Your task to perform on an android device: What's the news this month? Image 0: 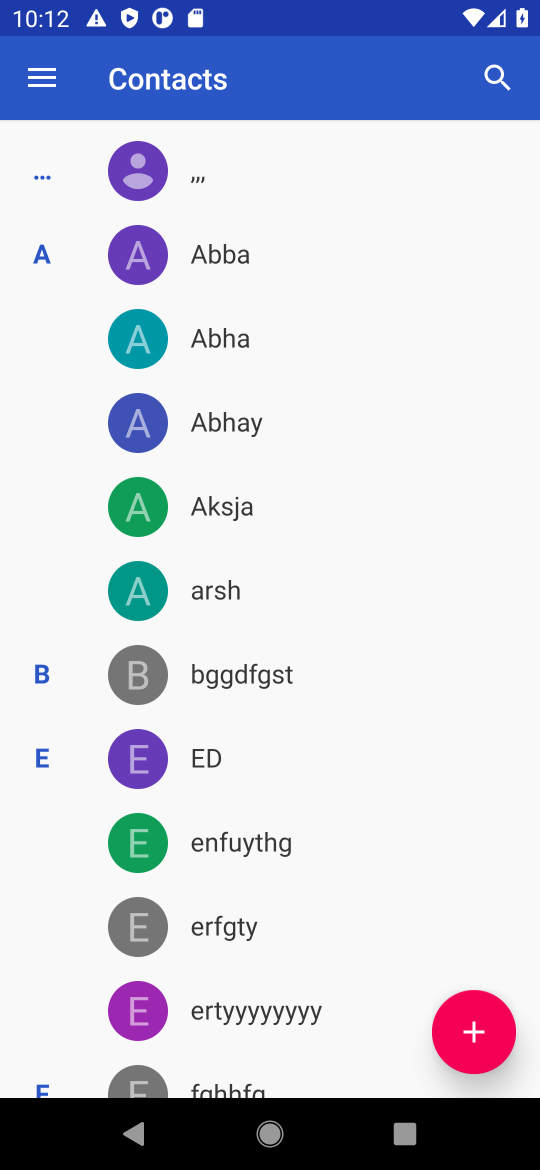
Step 0: press home button
Your task to perform on an android device: What's the news this month? Image 1: 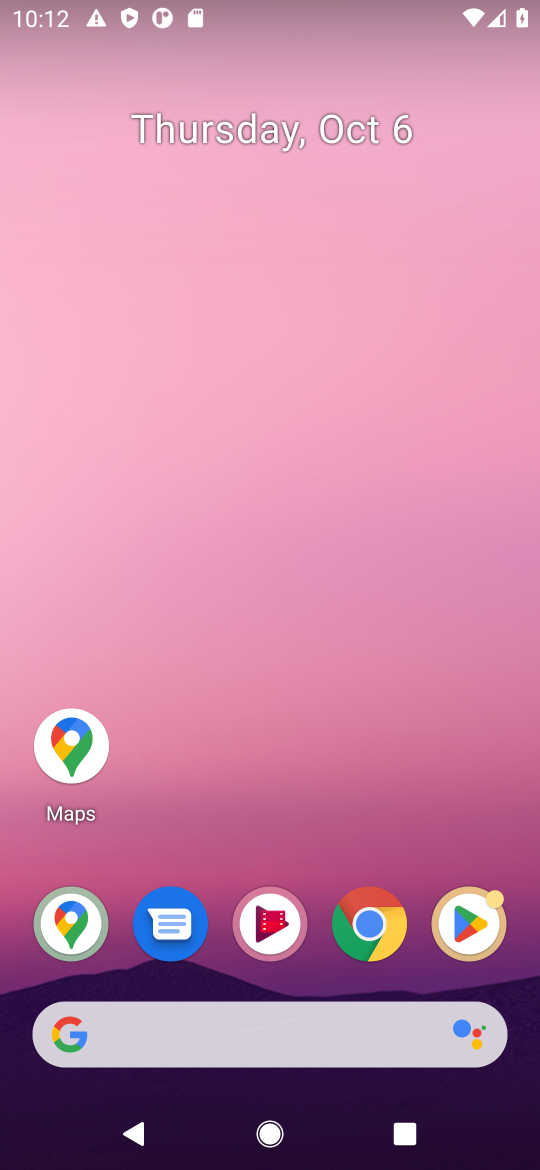
Step 1: click (376, 916)
Your task to perform on an android device: What's the news this month? Image 2: 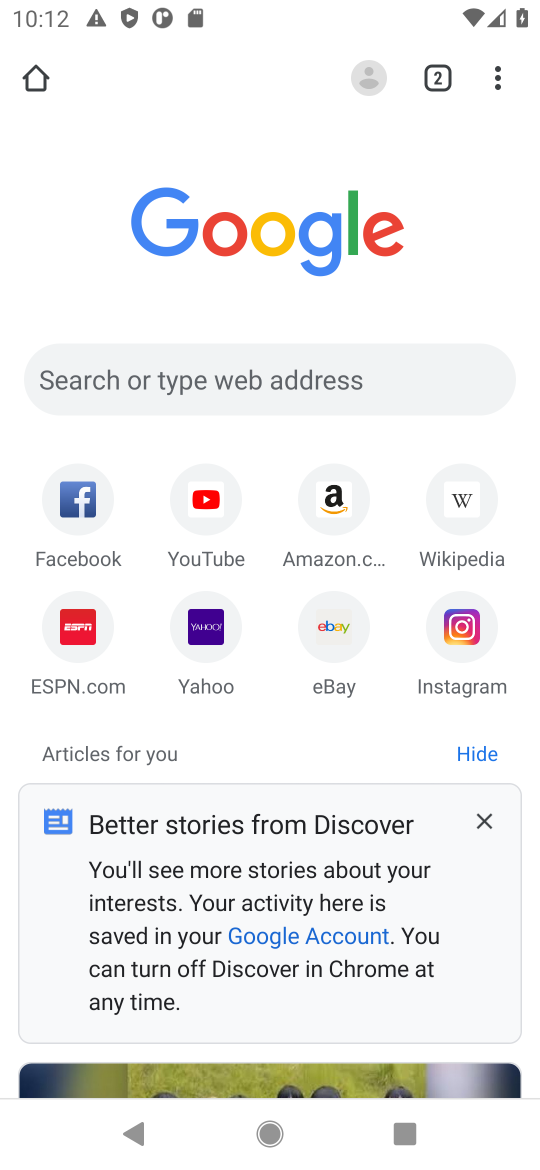
Step 2: click (166, 378)
Your task to perform on an android device: What's the news this month? Image 3: 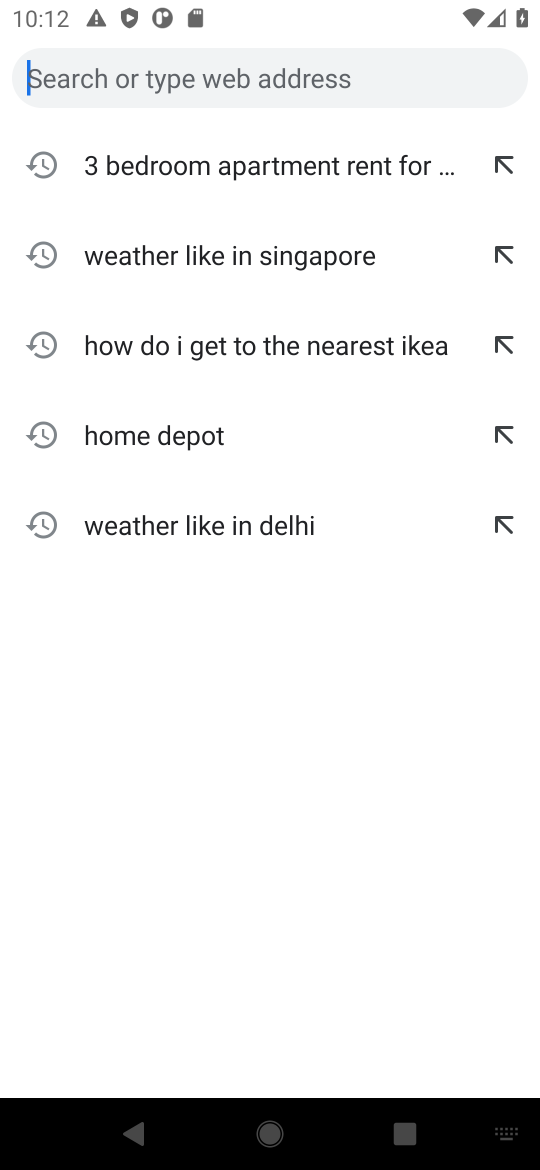
Step 3: type "news this month"
Your task to perform on an android device: What's the news this month? Image 4: 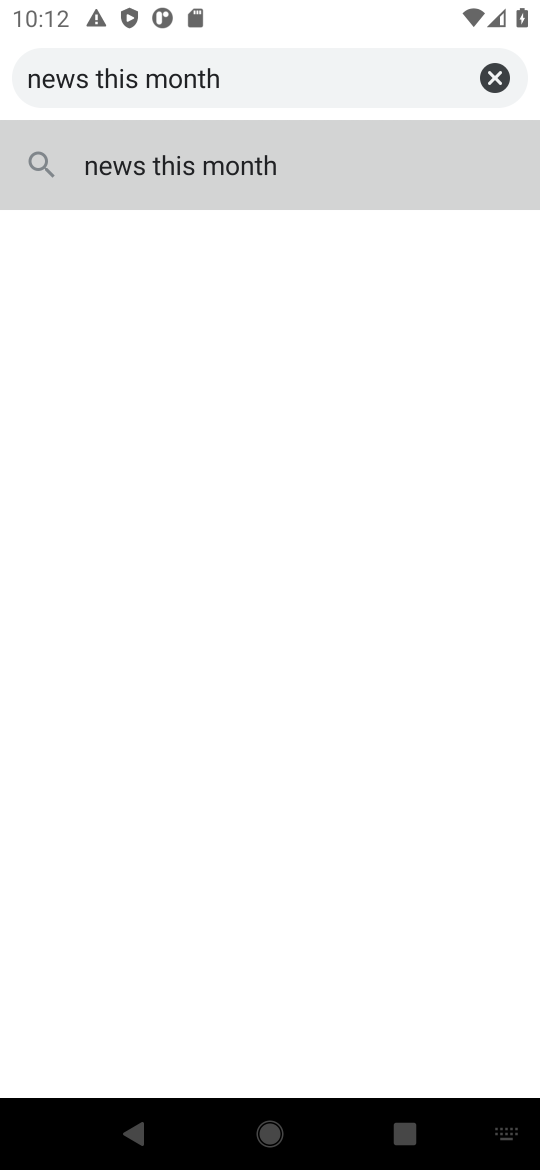
Step 4: click (279, 176)
Your task to perform on an android device: What's the news this month? Image 5: 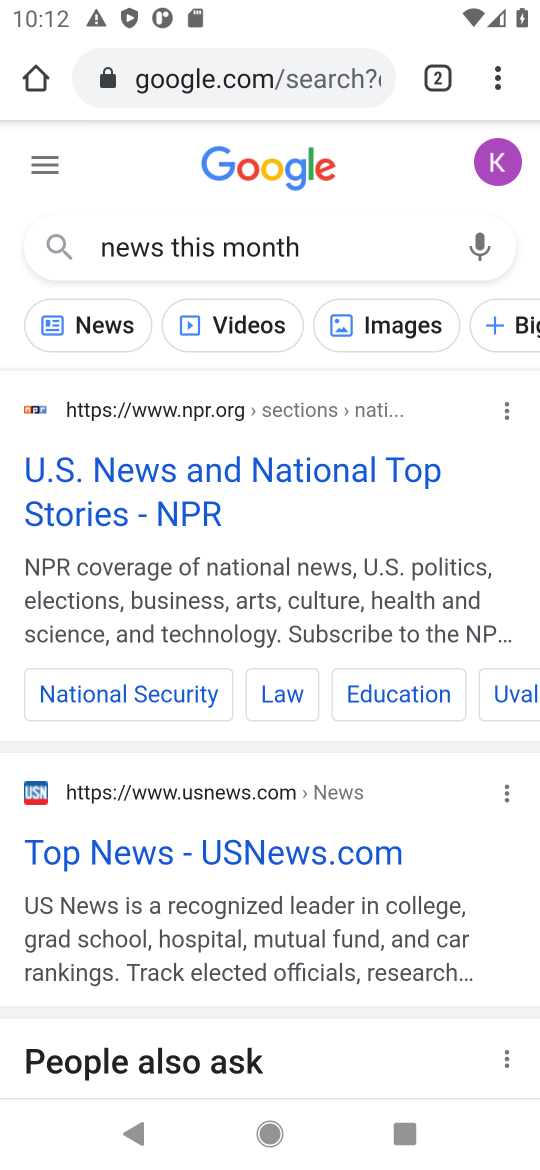
Step 5: click (119, 329)
Your task to perform on an android device: What's the news this month? Image 6: 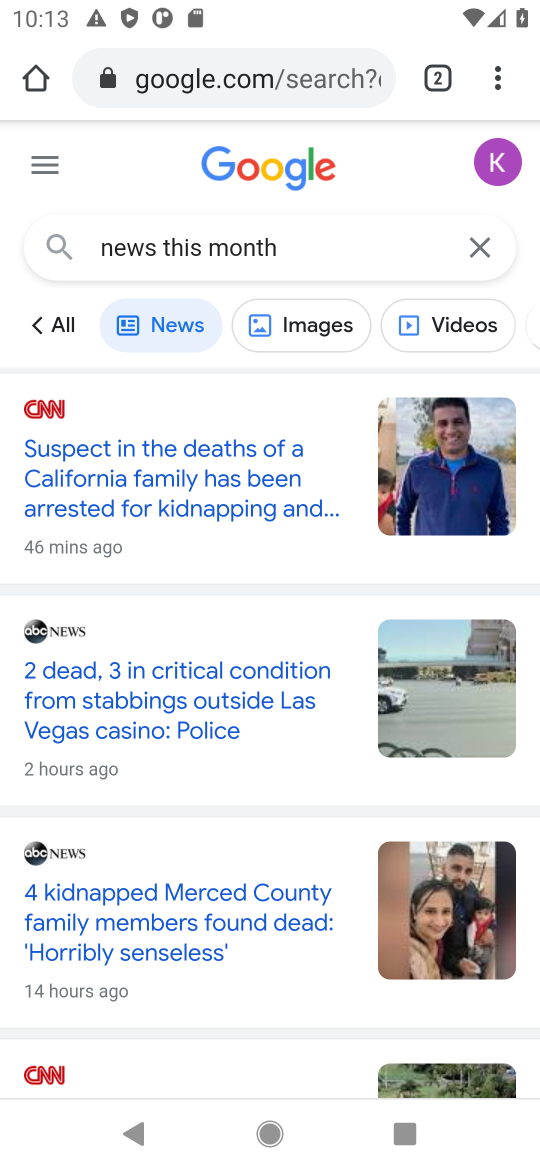
Step 6: task complete